Your task to perform on an android device: check storage Image 0: 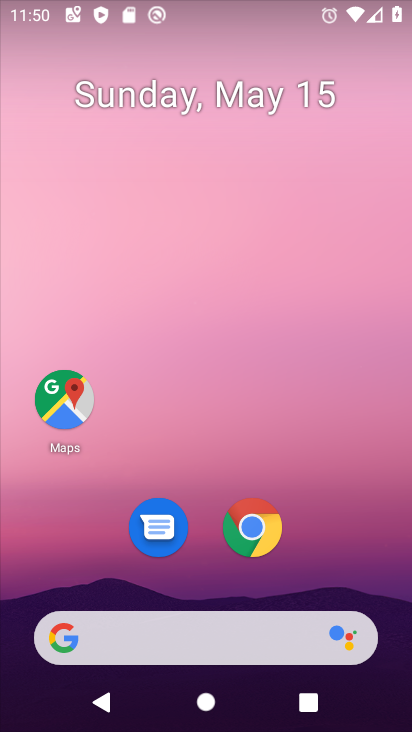
Step 0: drag from (320, 569) to (321, 47)
Your task to perform on an android device: check storage Image 1: 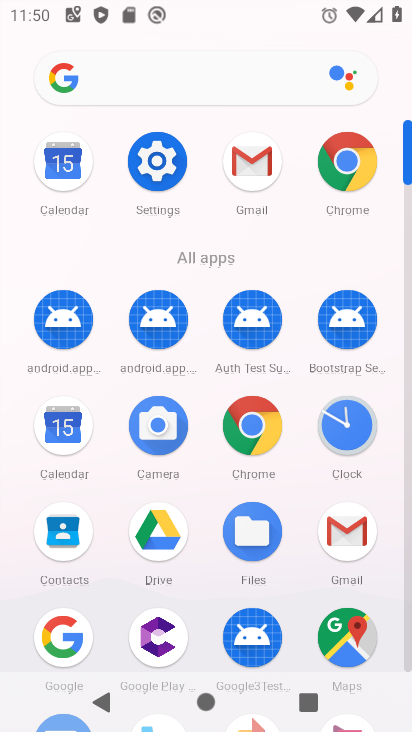
Step 1: click (173, 166)
Your task to perform on an android device: check storage Image 2: 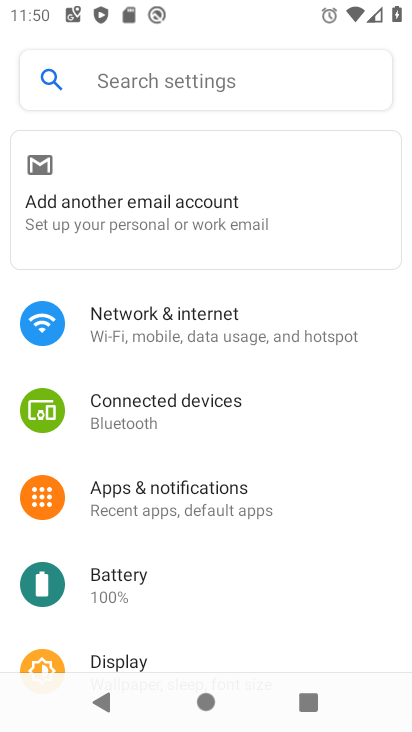
Step 2: drag from (205, 537) to (280, 209)
Your task to perform on an android device: check storage Image 3: 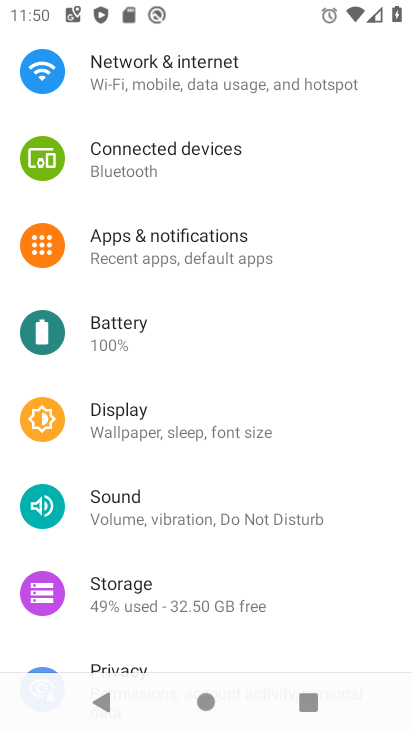
Step 3: click (209, 598)
Your task to perform on an android device: check storage Image 4: 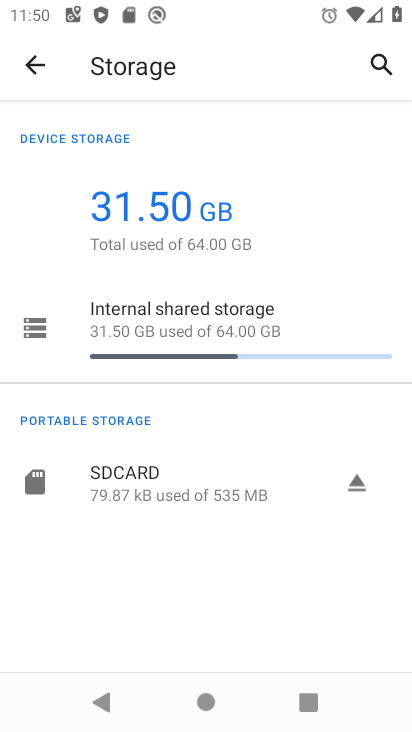
Step 4: task complete